Your task to perform on an android device: change timer sound Image 0: 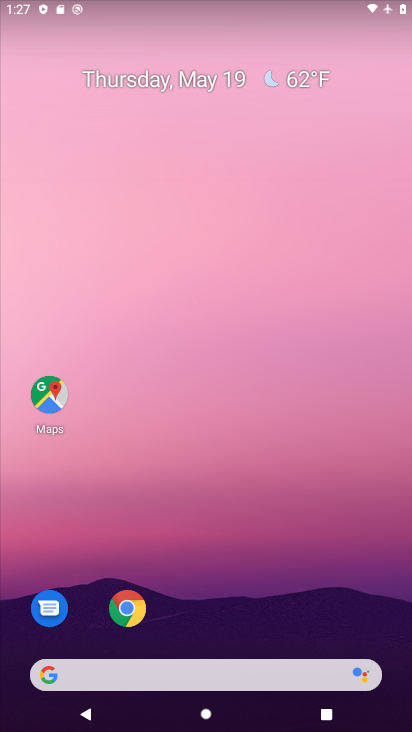
Step 0: drag from (330, 601) to (141, 26)
Your task to perform on an android device: change timer sound Image 1: 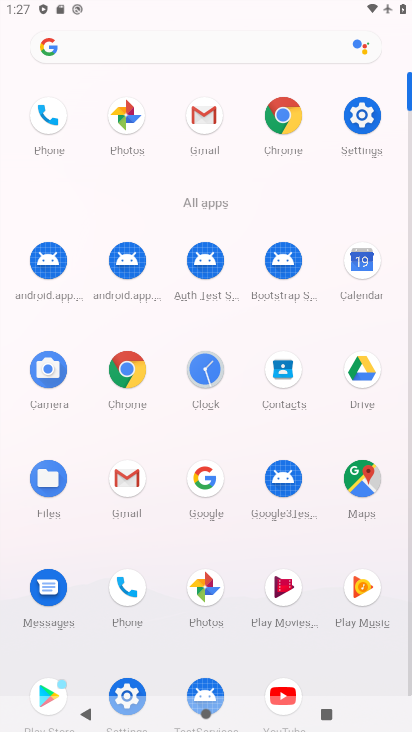
Step 1: click (375, 144)
Your task to perform on an android device: change timer sound Image 2: 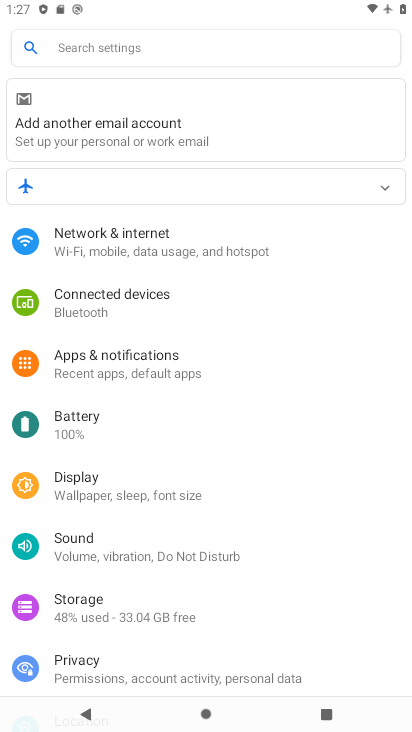
Step 2: drag from (184, 599) to (122, 368)
Your task to perform on an android device: change timer sound Image 3: 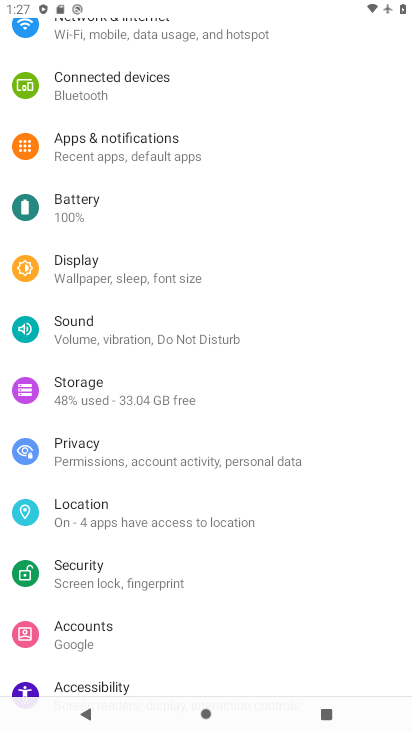
Step 3: drag from (133, 548) to (126, 276)
Your task to perform on an android device: change timer sound Image 4: 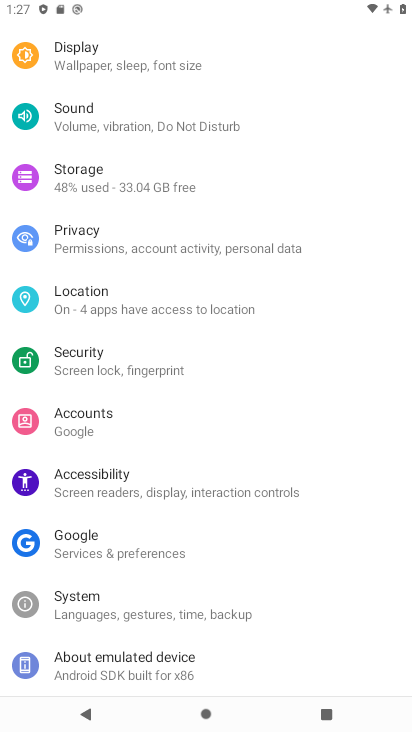
Step 4: click (98, 130)
Your task to perform on an android device: change timer sound Image 5: 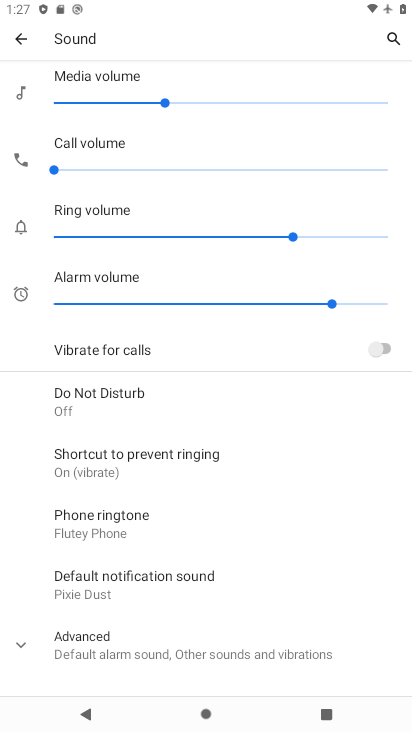
Step 5: task complete